Your task to perform on an android device: Search for "dell xps" on costco.com, select the first entry, add it to the cart, then select checkout. Image 0: 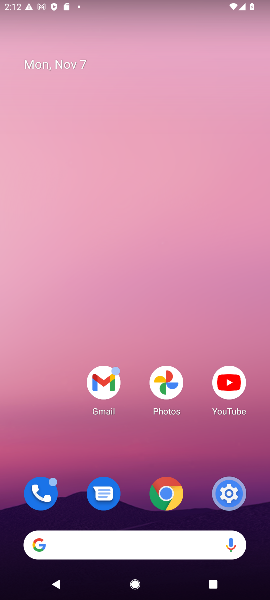
Step 0: drag from (139, 440) to (137, 13)
Your task to perform on an android device: Search for "dell xps" on costco.com, select the first entry, add it to the cart, then select checkout. Image 1: 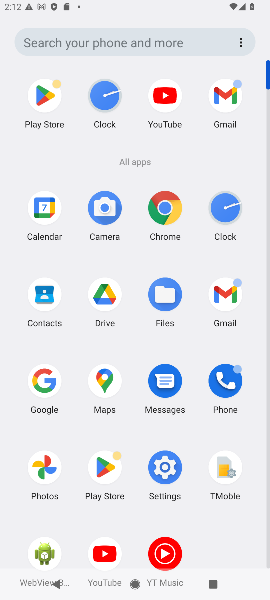
Step 1: click (163, 203)
Your task to perform on an android device: Search for "dell xps" on costco.com, select the first entry, add it to the cart, then select checkout. Image 2: 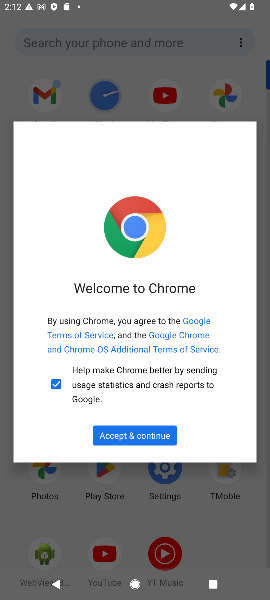
Step 2: click (126, 434)
Your task to perform on an android device: Search for "dell xps" on costco.com, select the first entry, add it to the cart, then select checkout. Image 3: 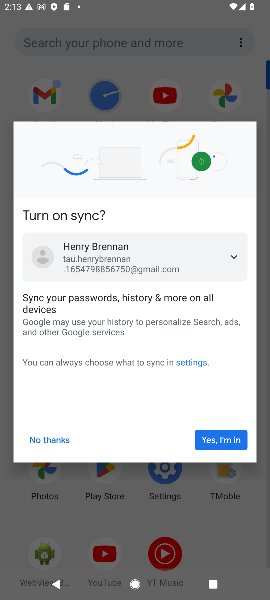
Step 3: click (214, 434)
Your task to perform on an android device: Search for "dell xps" on costco.com, select the first entry, add it to the cart, then select checkout. Image 4: 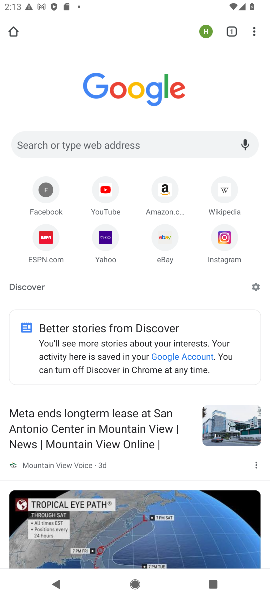
Step 4: click (74, 141)
Your task to perform on an android device: Search for "dell xps" on costco.com, select the first entry, add it to the cart, then select checkout. Image 5: 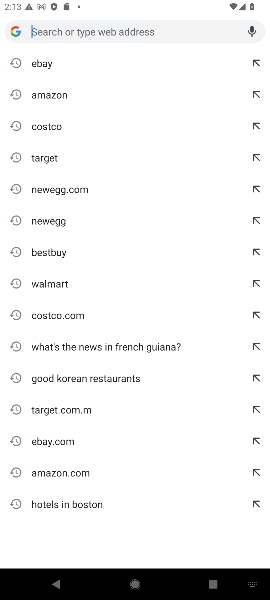
Step 5: type "costco"
Your task to perform on an android device: Search for "dell xps" on costco.com, select the first entry, add it to the cart, then select checkout. Image 6: 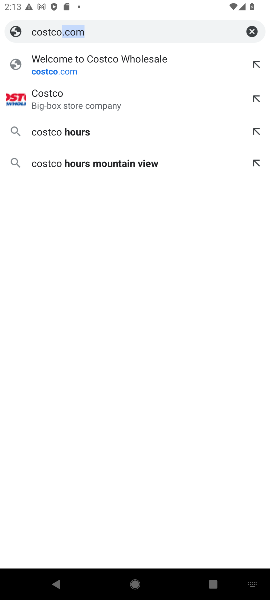
Step 6: click (68, 67)
Your task to perform on an android device: Search for "dell xps" on costco.com, select the first entry, add it to the cart, then select checkout. Image 7: 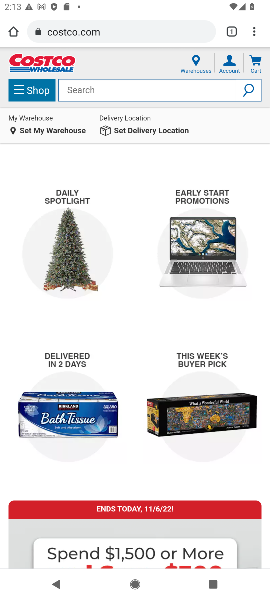
Step 7: click (83, 90)
Your task to perform on an android device: Search for "dell xps" on costco.com, select the first entry, add it to the cart, then select checkout. Image 8: 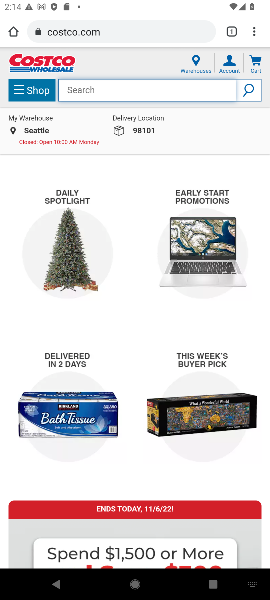
Step 8: type "dell xps"
Your task to perform on an android device: Search for "dell xps" on costco.com, select the first entry, add it to the cart, then select checkout. Image 9: 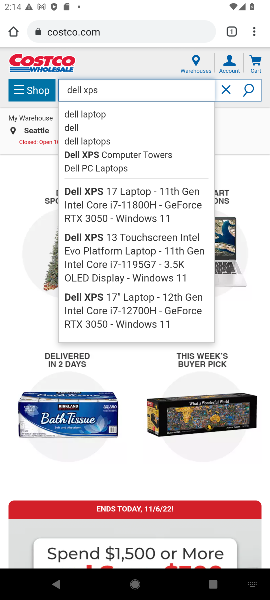
Step 9: click (95, 155)
Your task to perform on an android device: Search for "dell xps" on costco.com, select the first entry, add it to the cart, then select checkout. Image 10: 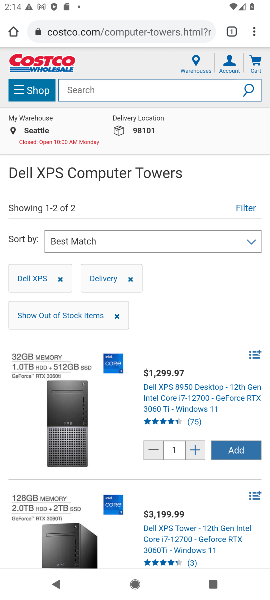
Step 10: click (241, 452)
Your task to perform on an android device: Search for "dell xps" on costco.com, select the first entry, add it to the cart, then select checkout. Image 11: 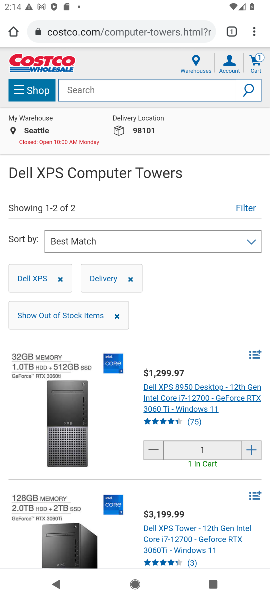
Step 11: click (254, 64)
Your task to perform on an android device: Search for "dell xps" on costco.com, select the first entry, add it to the cart, then select checkout. Image 12: 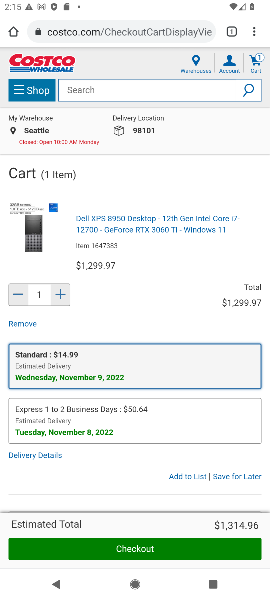
Step 12: click (137, 548)
Your task to perform on an android device: Search for "dell xps" on costco.com, select the first entry, add it to the cart, then select checkout. Image 13: 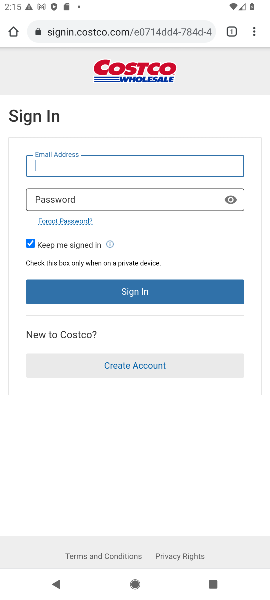
Step 13: task complete